Your task to perform on an android device: Search for sushi restaurants on Maps Image 0: 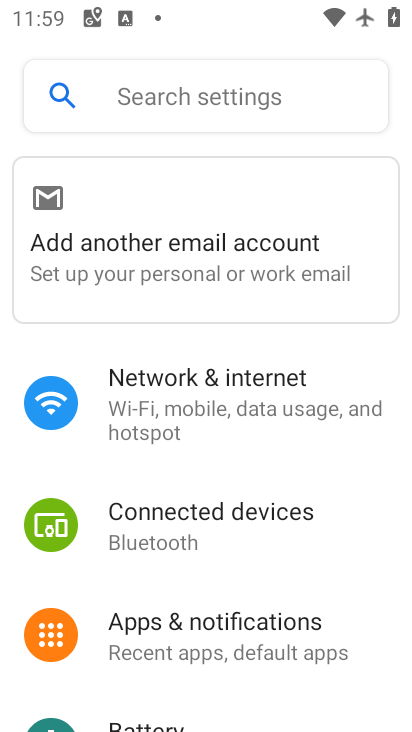
Step 0: drag from (300, 671) to (242, 253)
Your task to perform on an android device: Search for sushi restaurants on Maps Image 1: 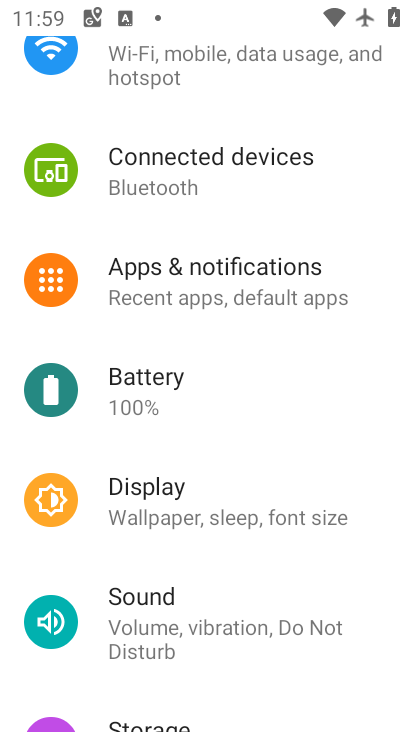
Step 1: press home button
Your task to perform on an android device: Search for sushi restaurants on Maps Image 2: 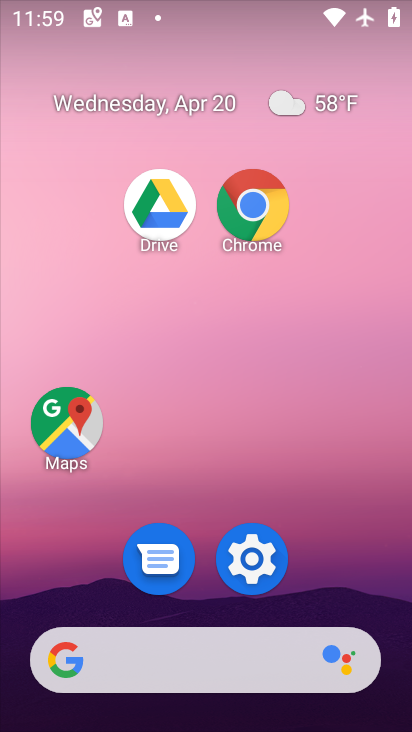
Step 2: drag from (359, 624) to (303, 0)
Your task to perform on an android device: Search for sushi restaurants on Maps Image 3: 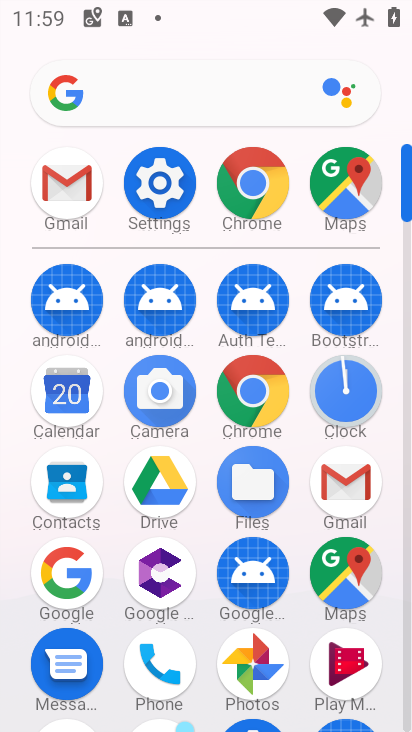
Step 3: drag from (212, 668) to (223, 133)
Your task to perform on an android device: Search for sushi restaurants on Maps Image 4: 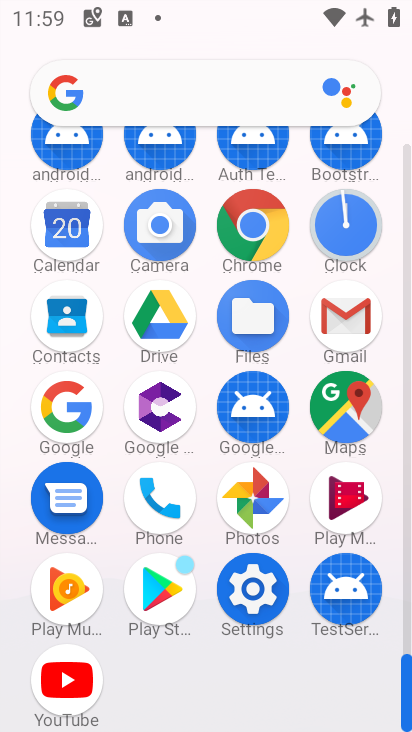
Step 4: click (339, 422)
Your task to perform on an android device: Search for sushi restaurants on Maps Image 5: 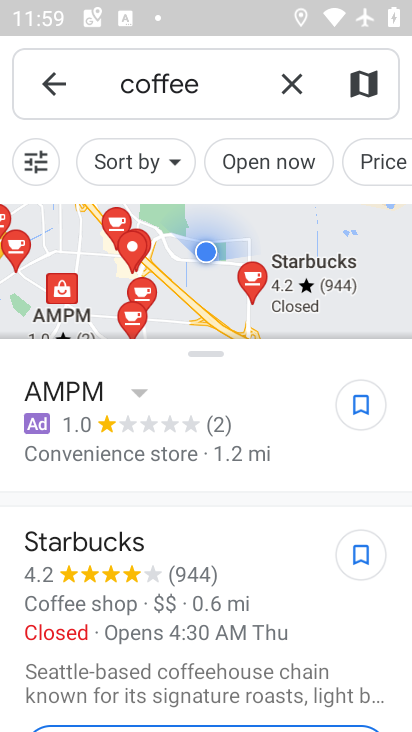
Step 5: drag from (194, 651) to (196, 135)
Your task to perform on an android device: Search for sushi restaurants on Maps Image 6: 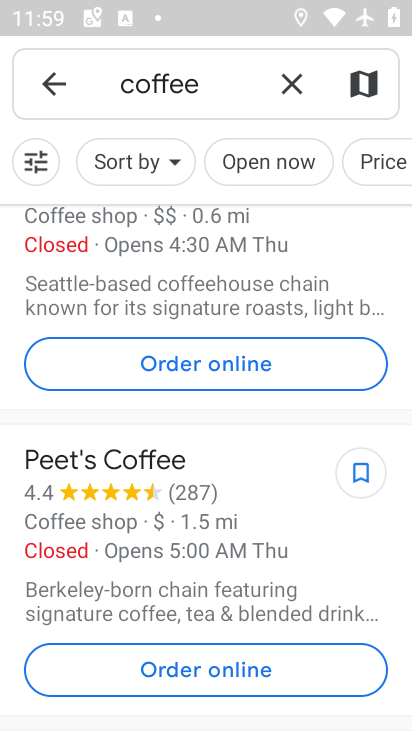
Step 6: click (305, 70)
Your task to perform on an android device: Search for sushi restaurants on Maps Image 7: 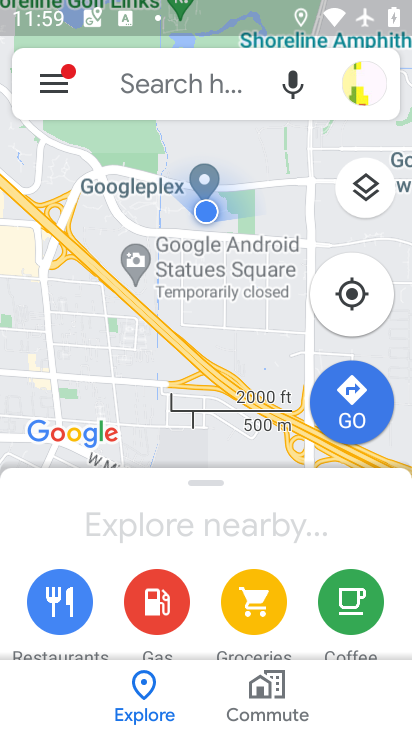
Step 7: click (202, 85)
Your task to perform on an android device: Search for sushi restaurants on Maps Image 8: 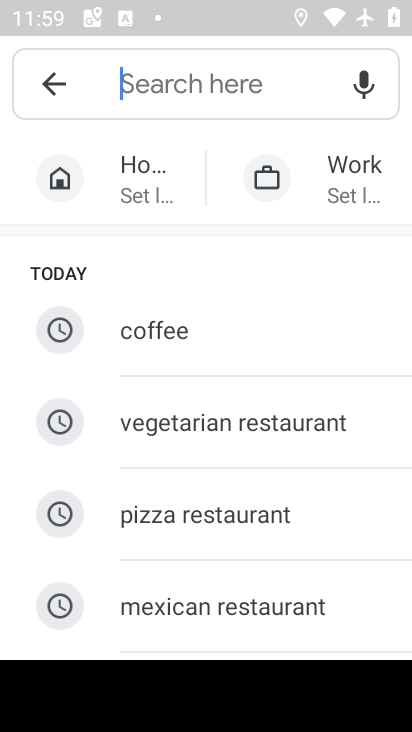
Step 8: type "sushi restaurant"
Your task to perform on an android device: Search for sushi restaurants on Maps Image 9: 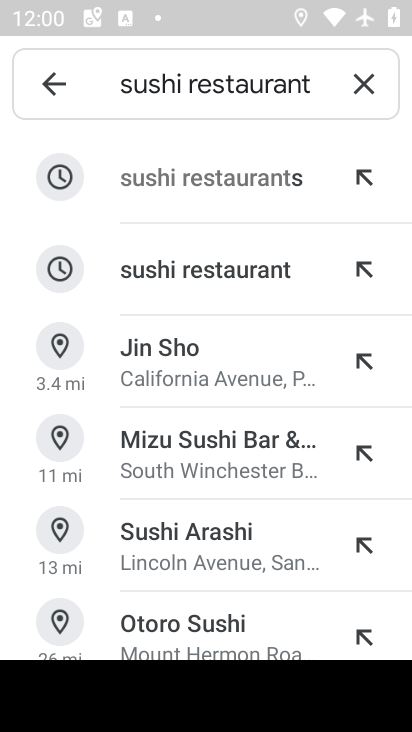
Step 9: click (252, 170)
Your task to perform on an android device: Search for sushi restaurants on Maps Image 10: 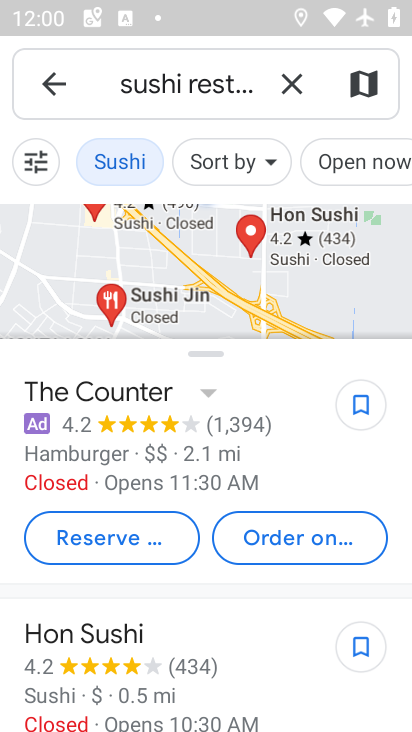
Step 10: task complete